Your task to perform on an android device: change your default location settings in chrome Image 0: 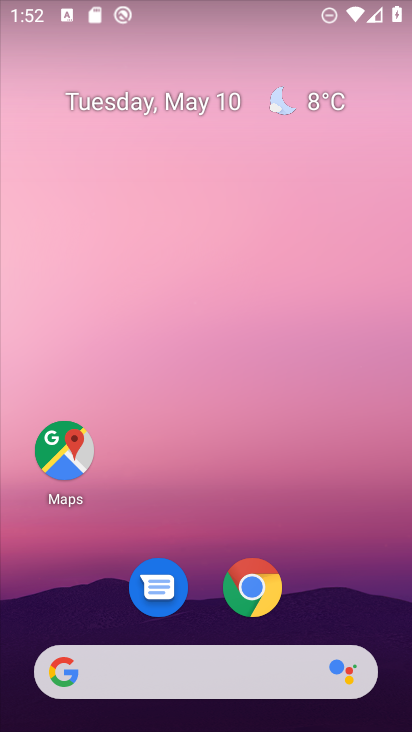
Step 0: click (242, 588)
Your task to perform on an android device: change your default location settings in chrome Image 1: 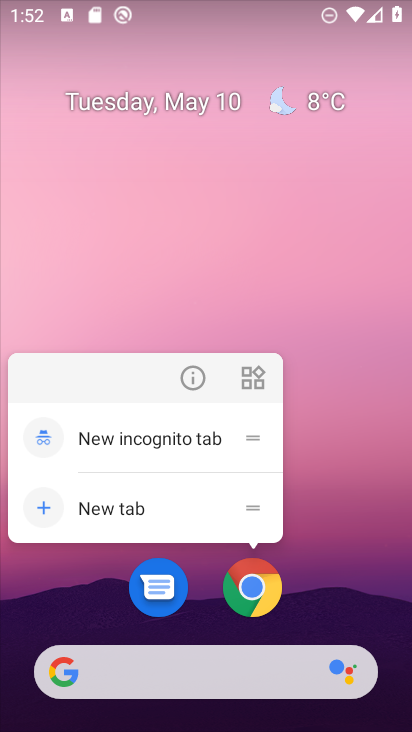
Step 1: click (241, 577)
Your task to perform on an android device: change your default location settings in chrome Image 2: 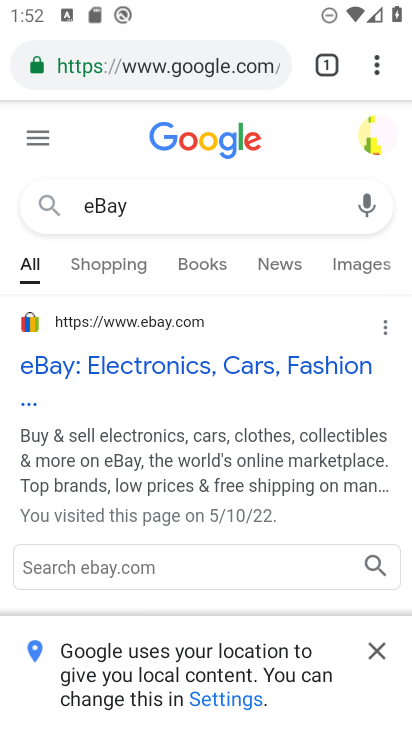
Step 2: click (374, 65)
Your task to perform on an android device: change your default location settings in chrome Image 3: 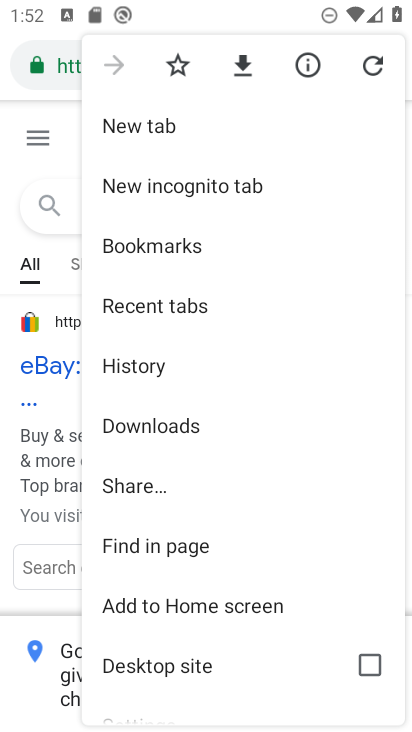
Step 3: drag from (309, 584) to (297, 266)
Your task to perform on an android device: change your default location settings in chrome Image 4: 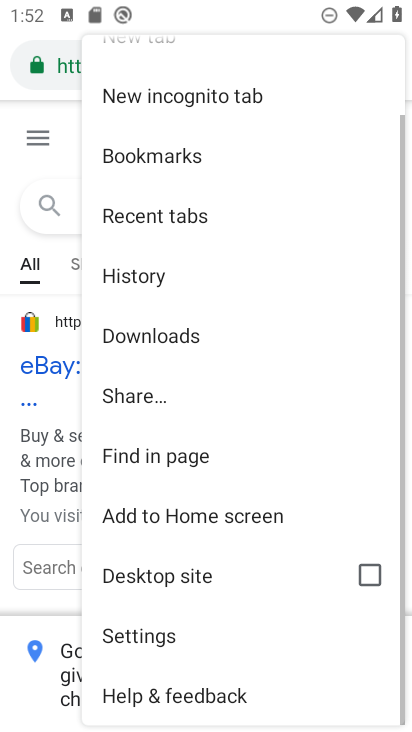
Step 4: click (135, 630)
Your task to perform on an android device: change your default location settings in chrome Image 5: 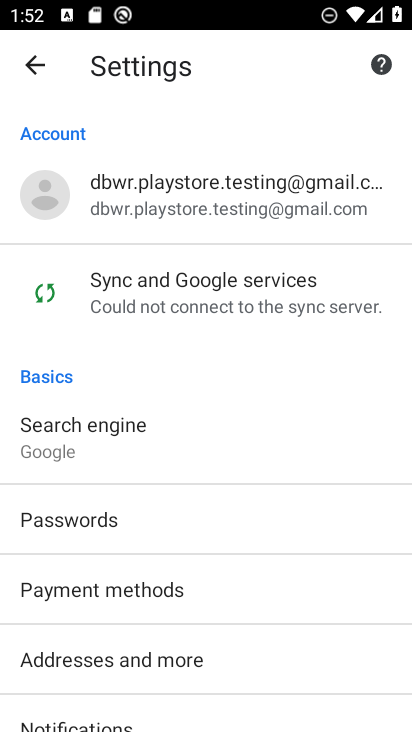
Step 5: click (73, 431)
Your task to perform on an android device: change your default location settings in chrome Image 6: 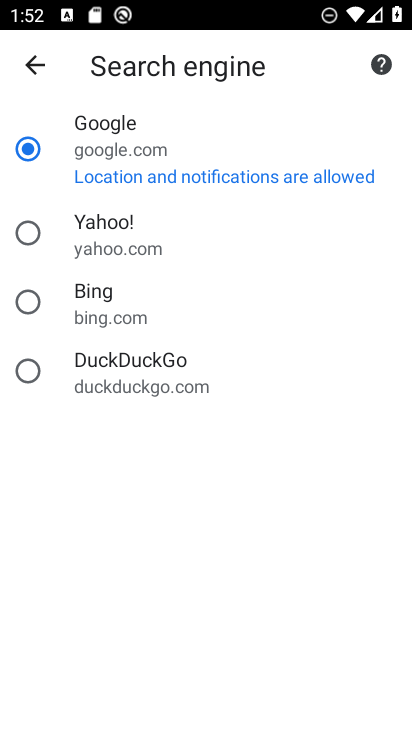
Step 6: click (35, 67)
Your task to perform on an android device: change your default location settings in chrome Image 7: 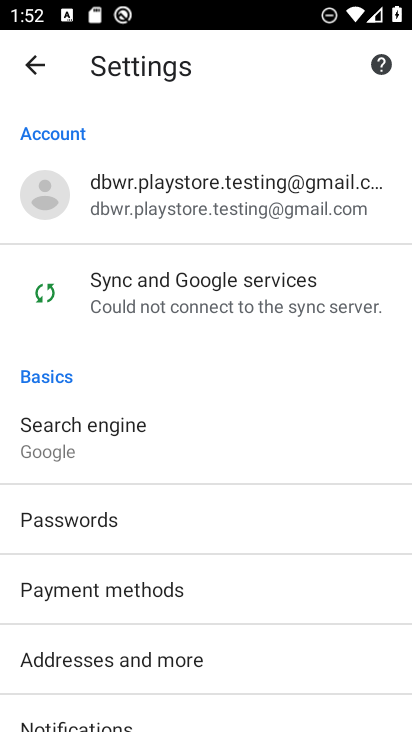
Step 7: drag from (265, 692) to (268, 421)
Your task to perform on an android device: change your default location settings in chrome Image 8: 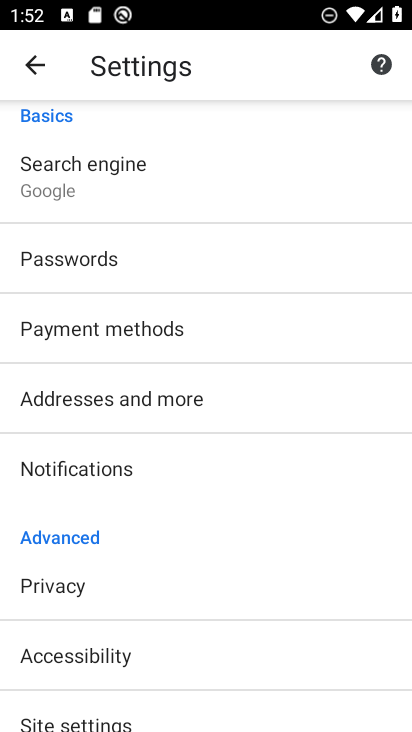
Step 8: drag from (215, 710) to (204, 441)
Your task to perform on an android device: change your default location settings in chrome Image 9: 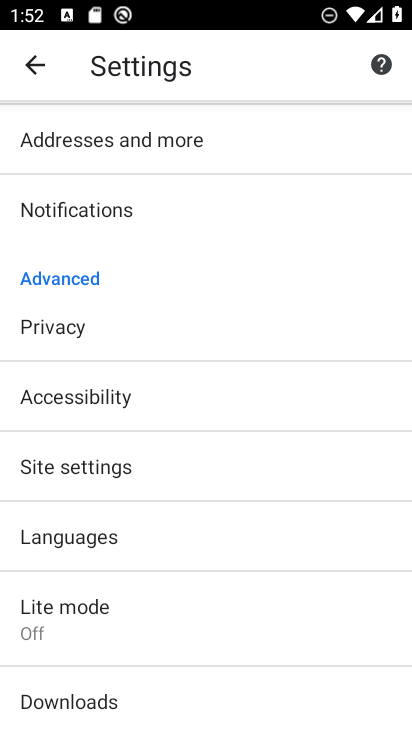
Step 9: click (67, 466)
Your task to perform on an android device: change your default location settings in chrome Image 10: 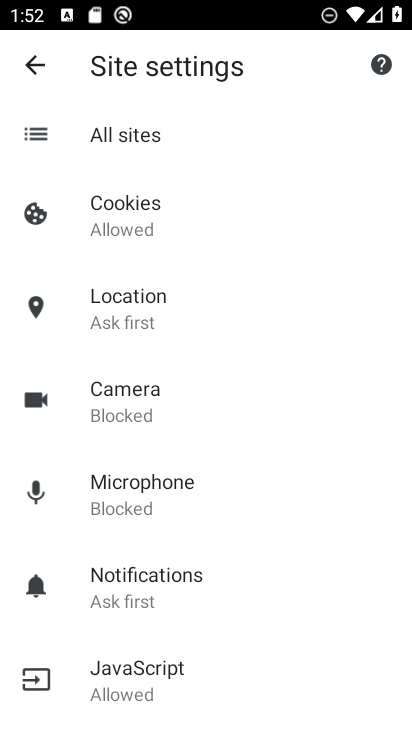
Step 10: click (115, 307)
Your task to perform on an android device: change your default location settings in chrome Image 11: 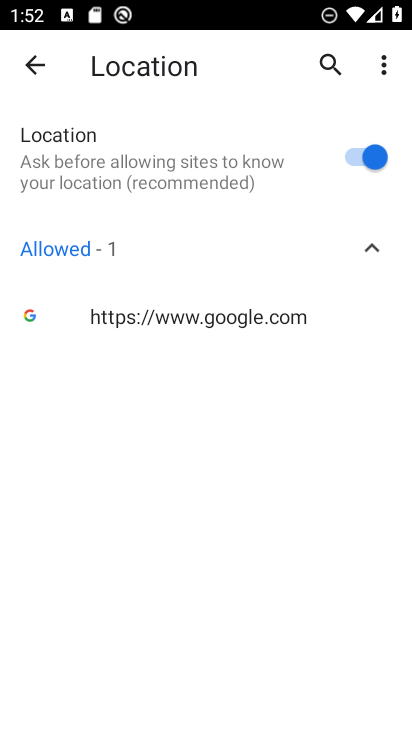
Step 11: task complete